Your task to perform on an android device: Show me recent news Image 0: 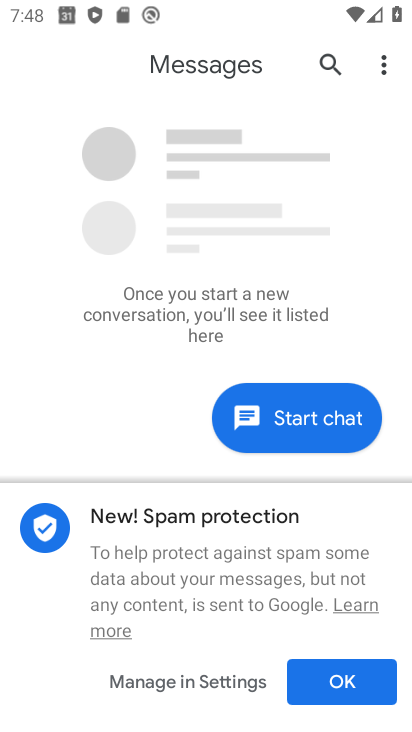
Step 0: press home button
Your task to perform on an android device: Show me recent news Image 1: 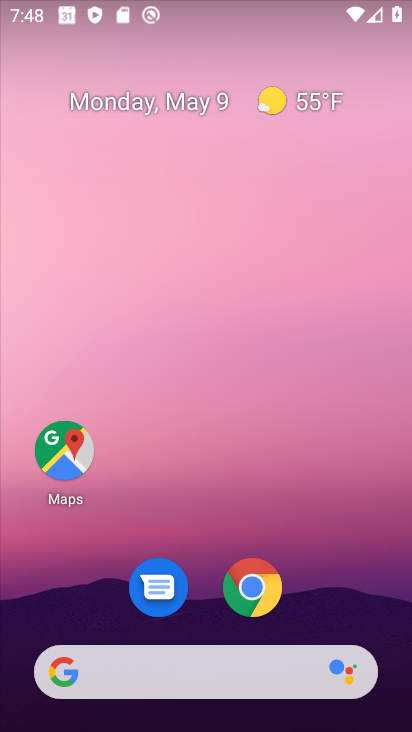
Step 1: drag from (229, 640) to (173, 8)
Your task to perform on an android device: Show me recent news Image 2: 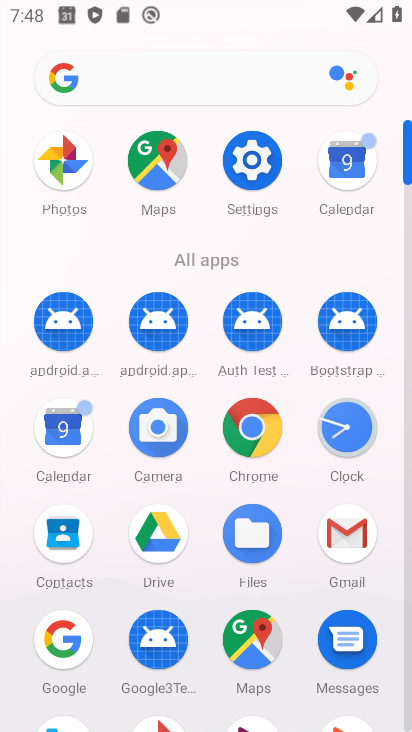
Step 2: click (52, 638)
Your task to perform on an android device: Show me recent news Image 3: 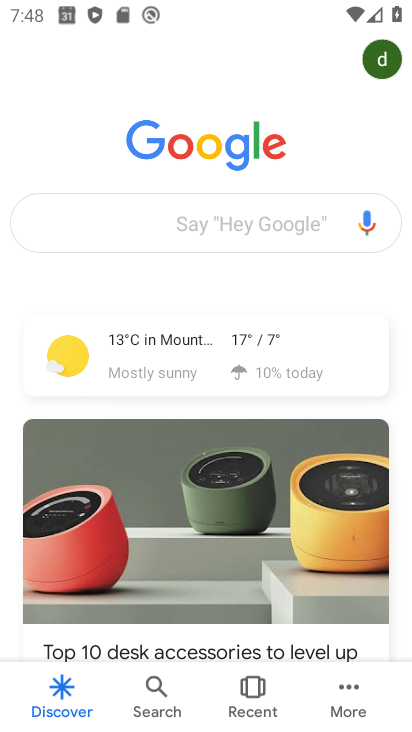
Step 3: task complete